Your task to perform on an android device: turn off picture-in-picture Image 0: 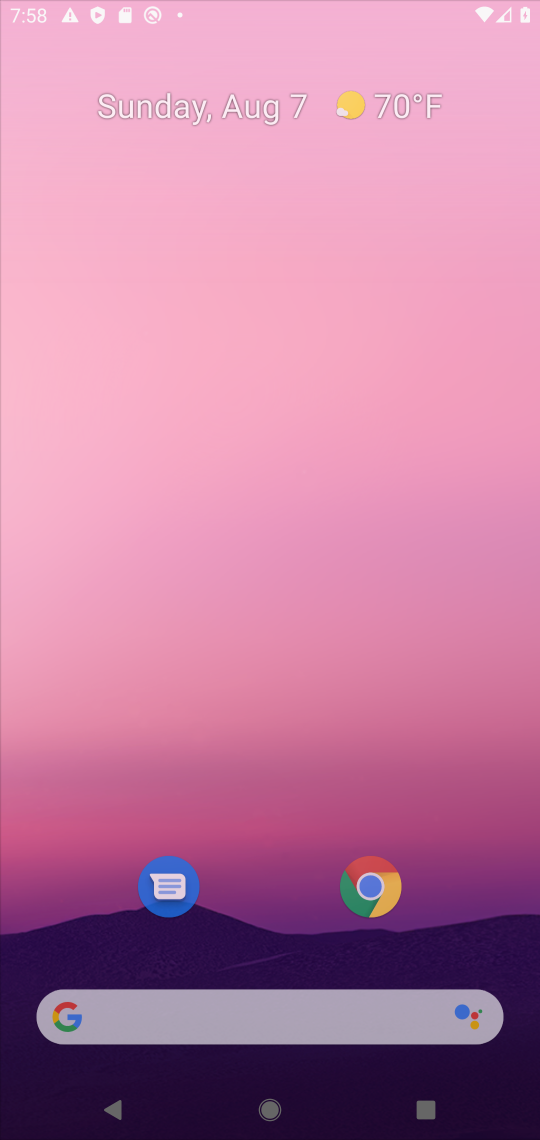
Step 0: click (270, 1099)
Your task to perform on an android device: turn off picture-in-picture Image 1: 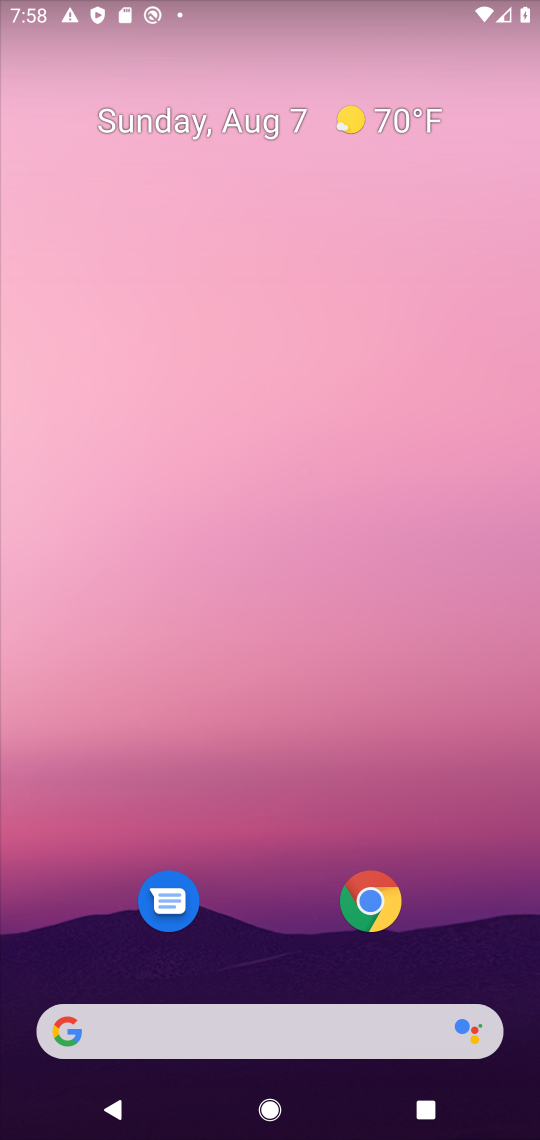
Step 1: drag from (228, 900) to (373, 227)
Your task to perform on an android device: turn off picture-in-picture Image 2: 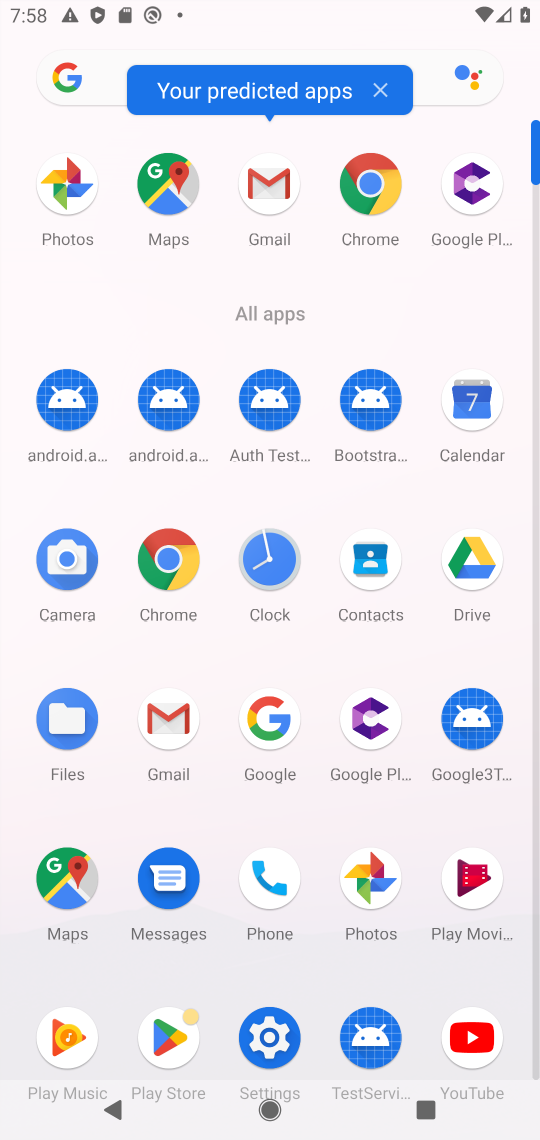
Step 2: click (53, 195)
Your task to perform on an android device: turn off picture-in-picture Image 3: 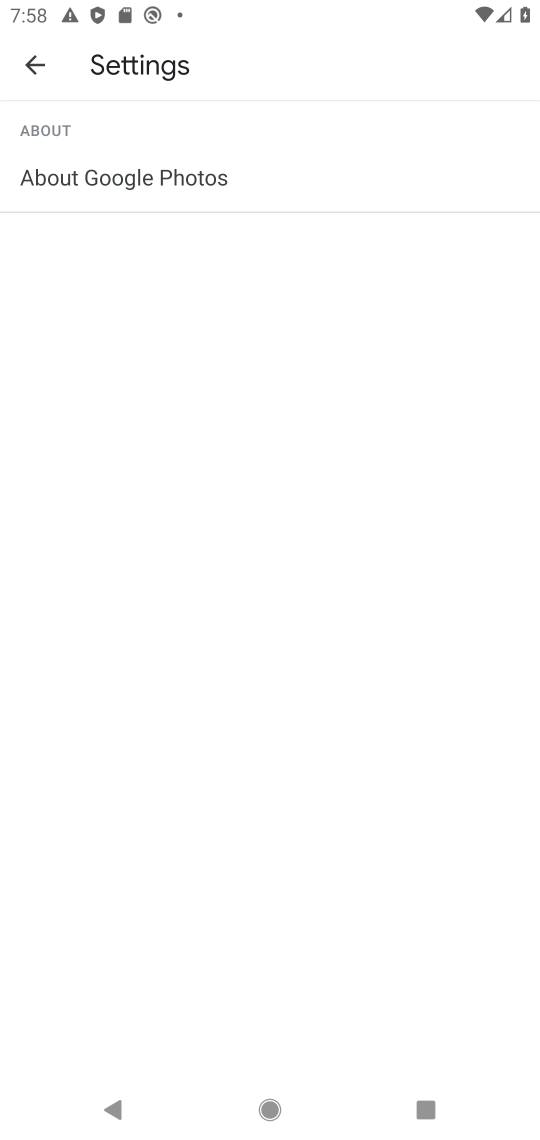
Step 3: click (28, 51)
Your task to perform on an android device: turn off picture-in-picture Image 4: 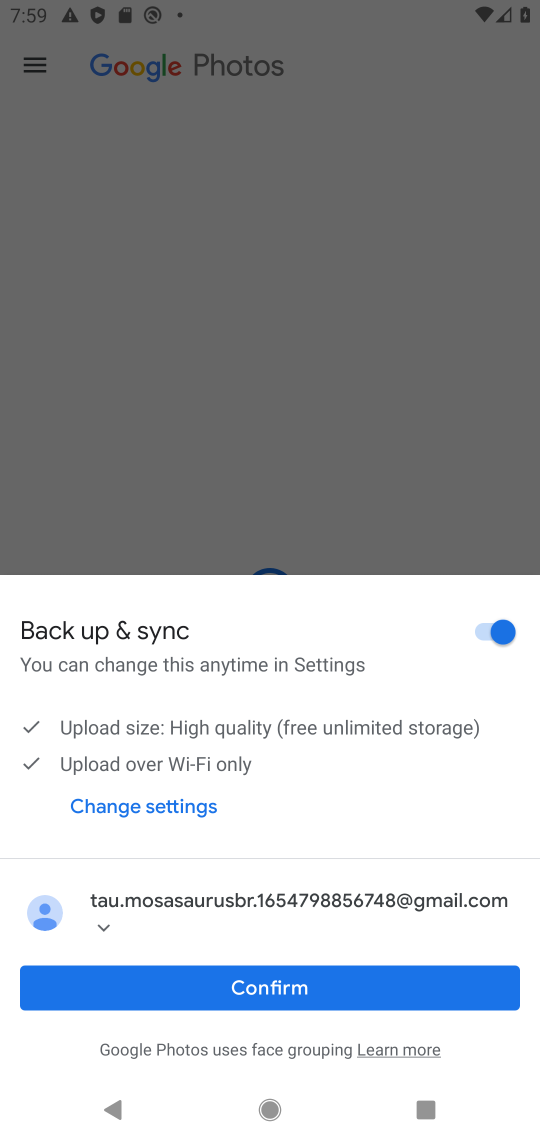
Step 4: click (204, 983)
Your task to perform on an android device: turn off picture-in-picture Image 5: 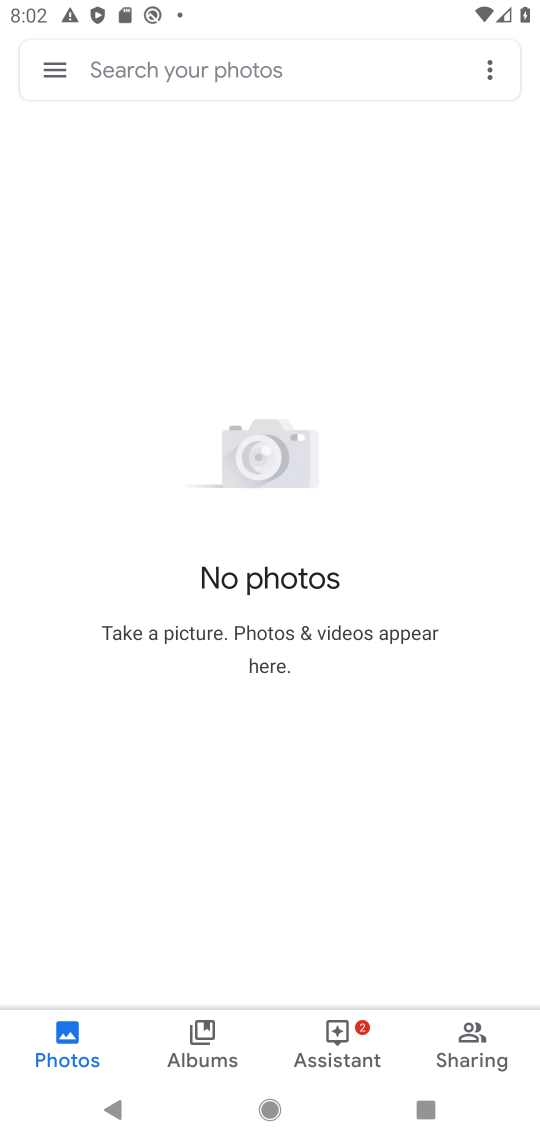
Step 5: task complete